Your task to perform on an android device: turn off airplane mode Image 0: 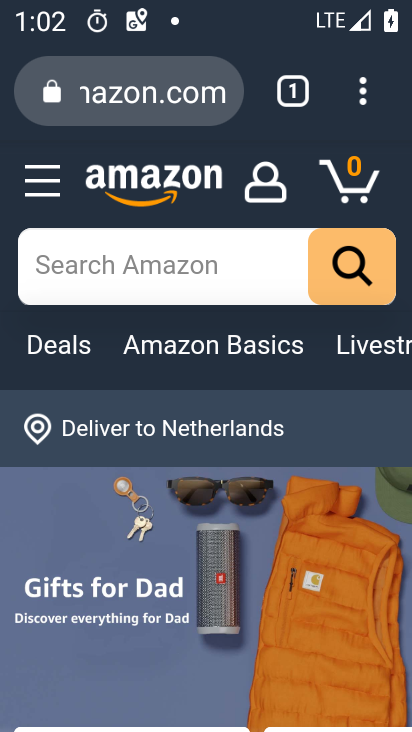
Step 0: press home button
Your task to perform on an android device: turn off airplane mode Image 1: 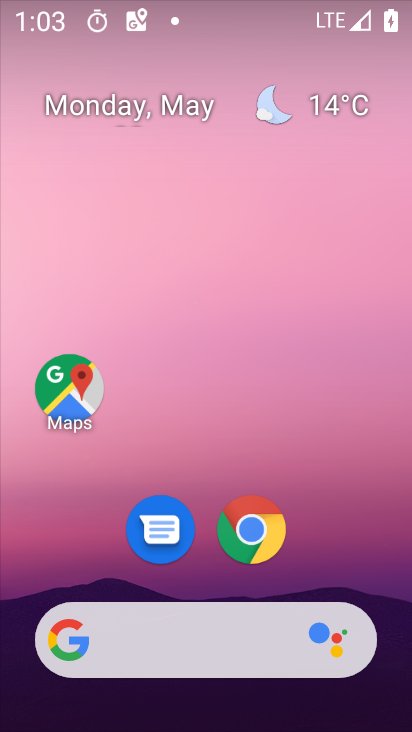
Step 1: drag from (376, 562) to (385, 177)
Your task to perform on an android device: turn off airplane mode Image 2: 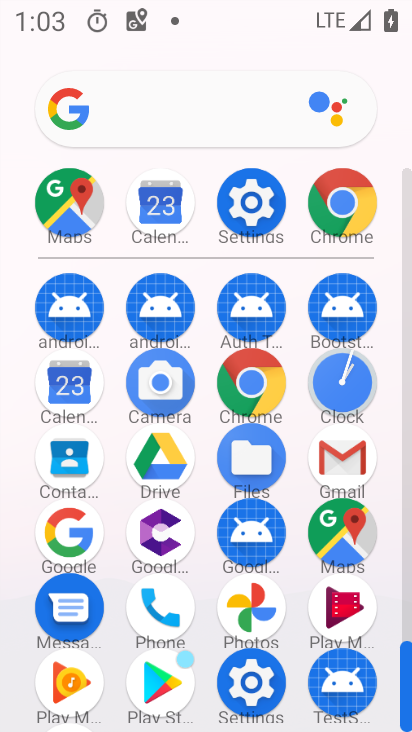
Step 2: click (264, 200)
Your task to perform on an android device: turn off airplane mode Image 3: 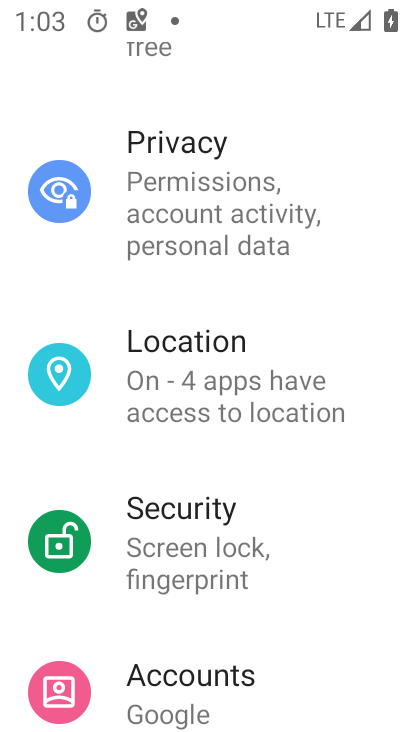
Step 3: drag from (357, 354) to (354, 442)
Your task to perform on an android device: turn off airplane mode Image 4: 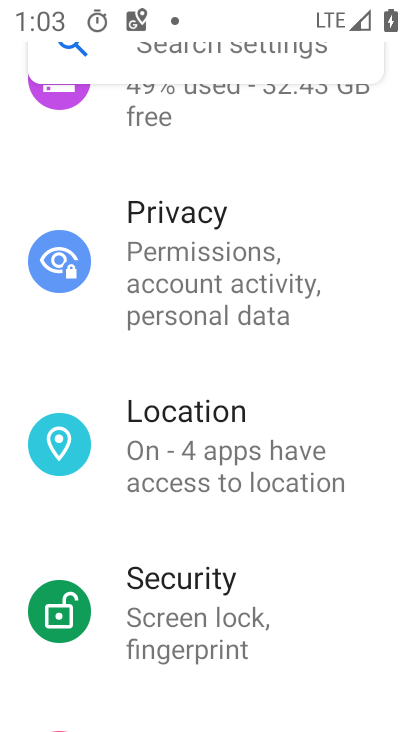
Step 4: drag from (370, 314) to (351, 430)
Your task to perform on an android device: turn off airplane mode Image 5: 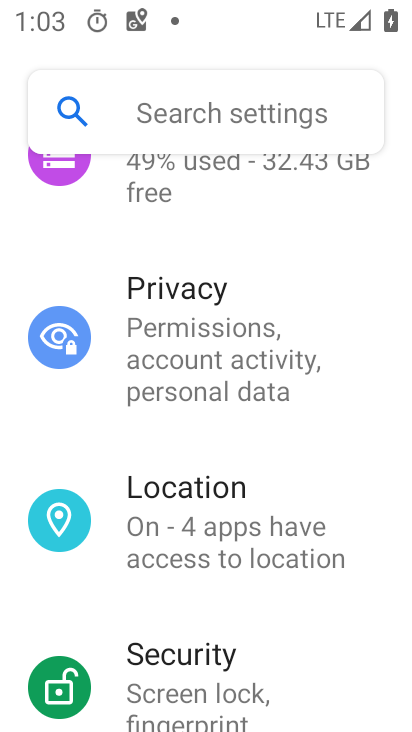
Step 5: drag from (358, 284) to (351, 376)
Your task to perform on an android device: turn off airplane mode Image 6: 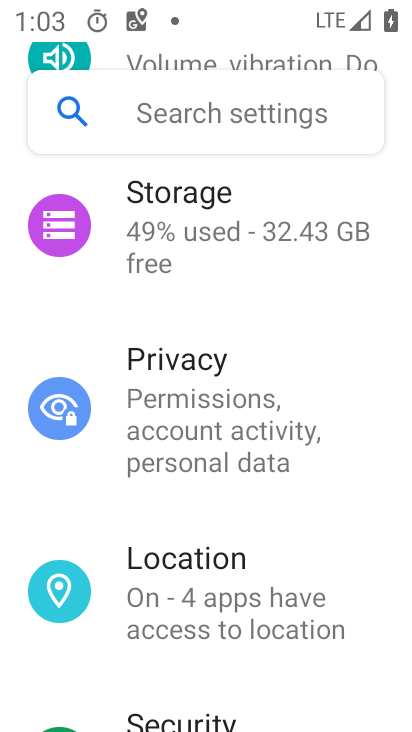
Step 6: drag from (359, 272) to (357, 366)
Your task to perform on an android device: turn off airplane mode Image 7: 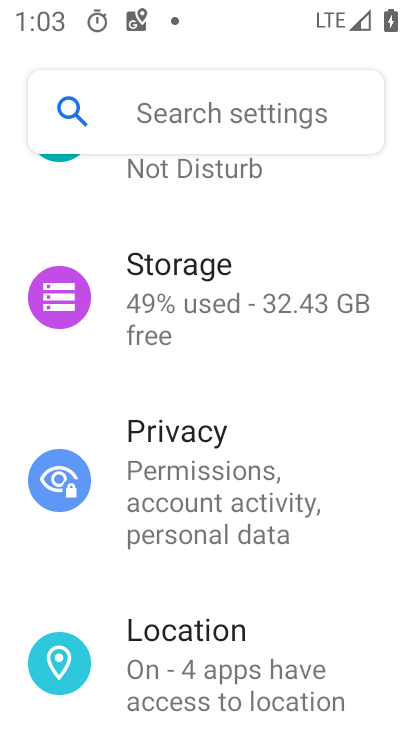
Step 7: drag from (378, 259) to (366, 366)
Your task to perform on an android device: turn off airplane mode Image 8: 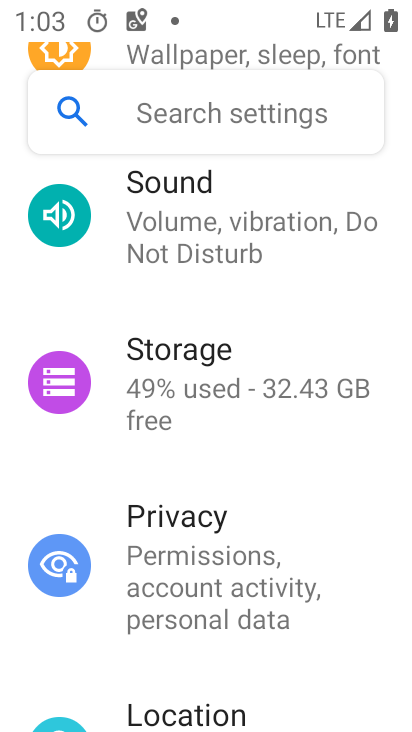
Step 8: drag from (376, 277) to (375, 368)
Your task to perform on an android device: turn off airplane mode Image 9: 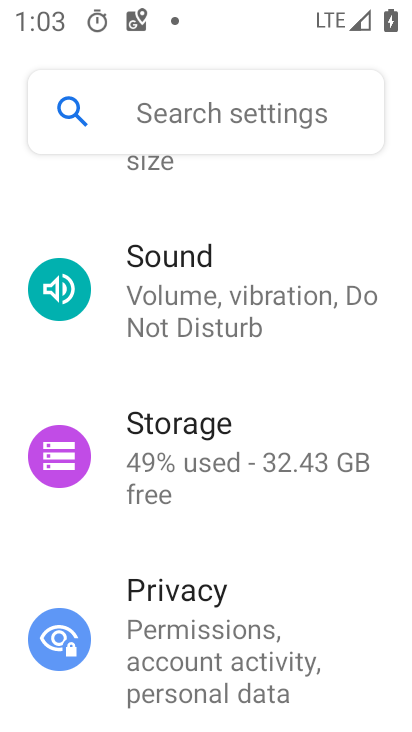
Step 9: drag from (377, 251) to (360, 363)
Your task to perform on an android device: turn off airplane mode Image 10: 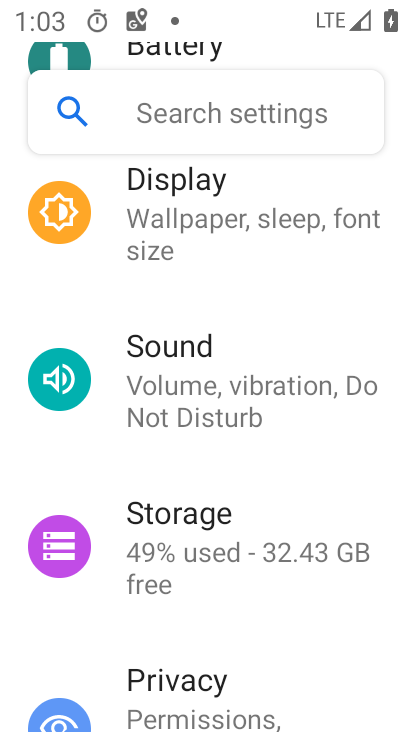
Step 10: drag from (390, 231) to (366, 344)
Your task to perform on an android device: turn off airplane mode Image 11: 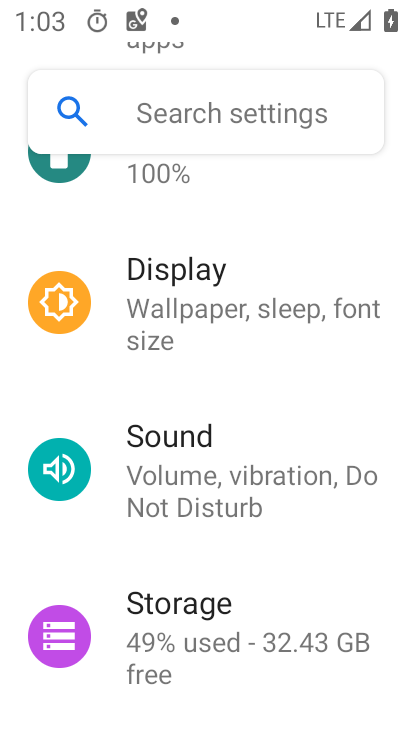
Step 11: drag from (382, 212) to (383, 349)
Your task to perform on an android device: turn off airplane mode Image 12: 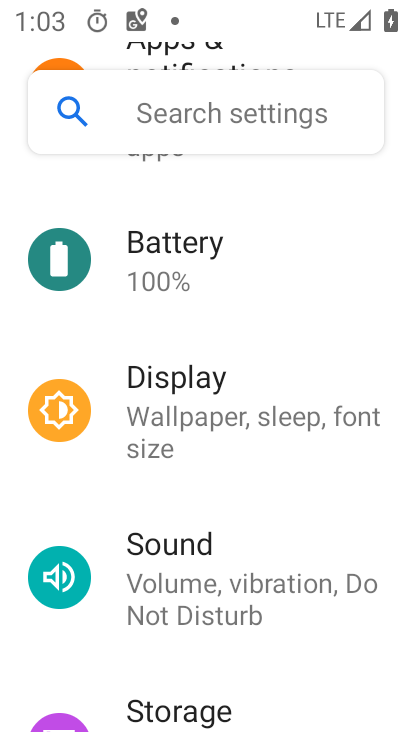
Step 12: drag from (369, 198) to (353, 343)
Your task to perform on an android device: turn off airplane mode Image 13: 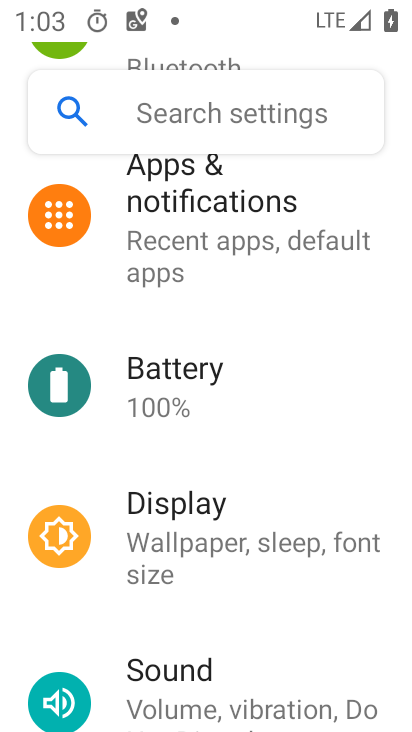
Step 13: drag from (378, 195) to (360, 328)
Your task to perform on an android device: turn off airplane mode Image 14: 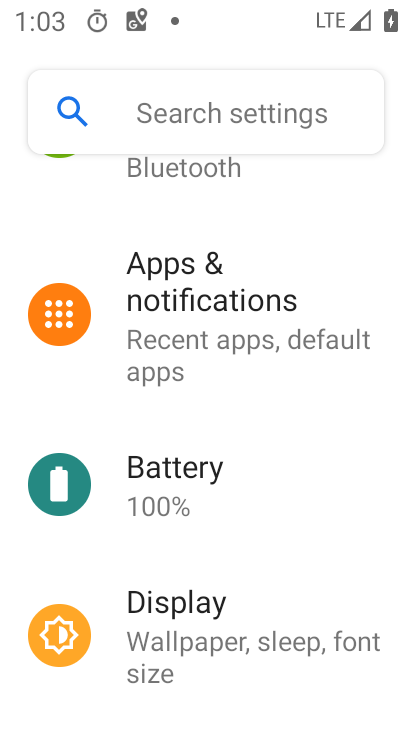
Step 14: drag from (364, 217) to (357, 343)
Your task to perform on an android device: turn off airplane mode Image 15: 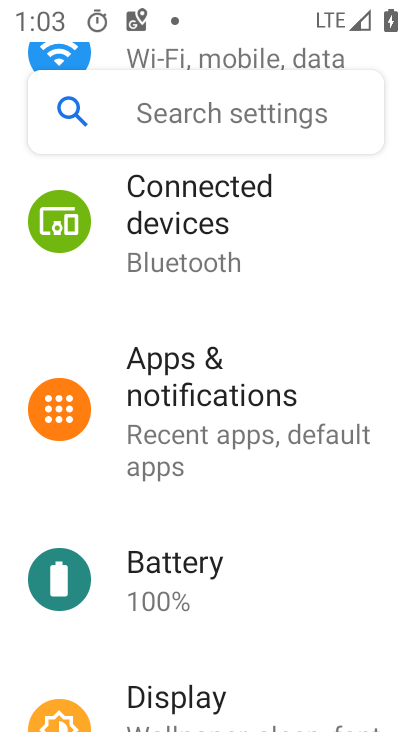
Step 15: drag from (356, 193) to (352, 315)
Your task to perform on an android device: turn off airplane mode Image 16: 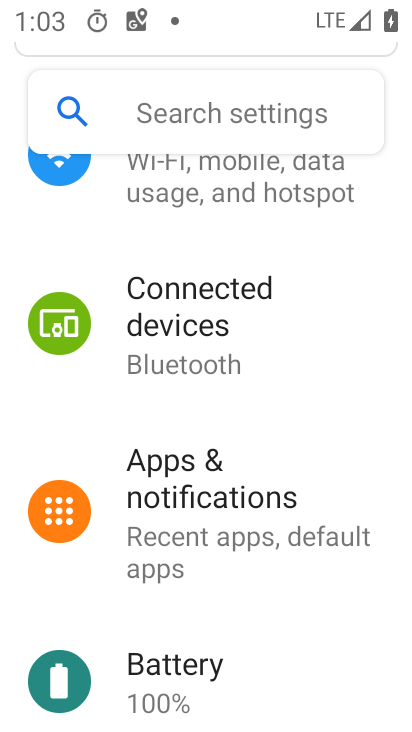
Step 16: drag from (381, 171) to (371, 308)
Your task to perform on an android device: turn off airplane mode Image 17: 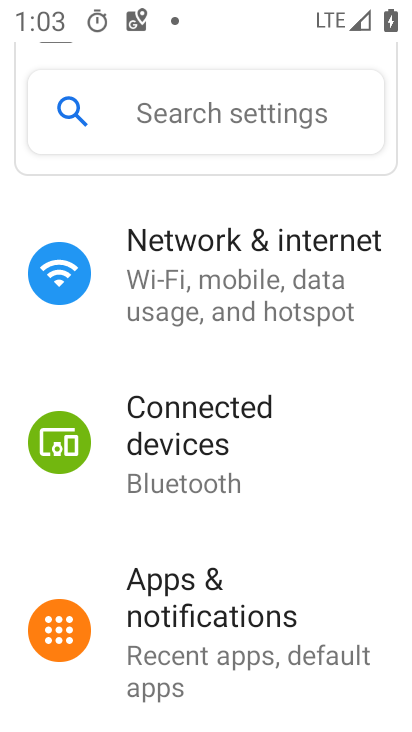
Step 17: drag from (368, 411) to (370, 322)
Your task to perform on an android device: turn off airplane mode Image 18: 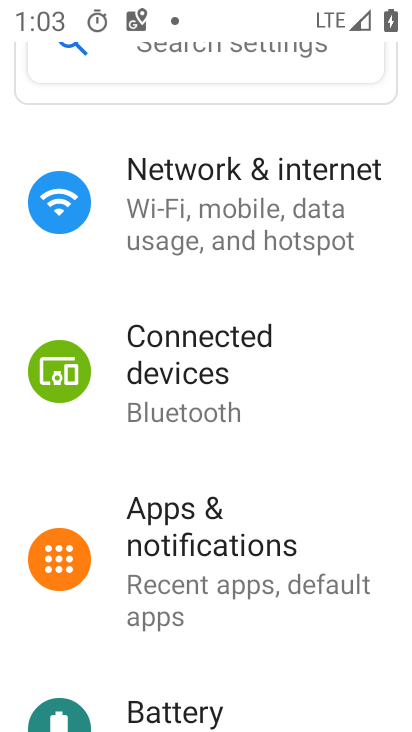
Step 18: drag from (356, 417) to (364, 327)
Your task to perform on an android device: turn off airplane mode Image 19: 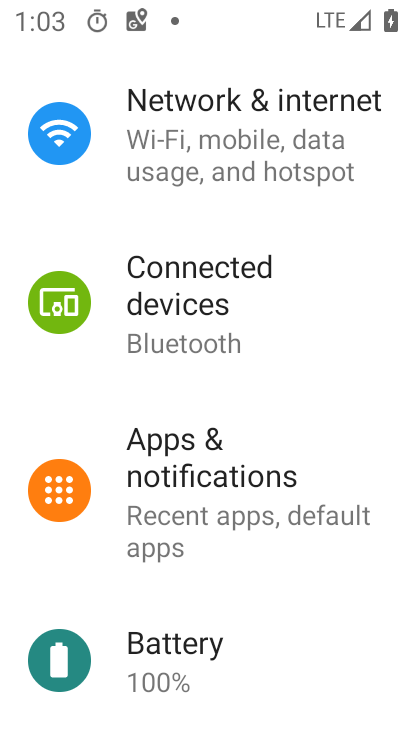
Step 19: drag from (372, 432) to (369, 331)
Your task to perform on an android device: turn off airplane mode Image 20: 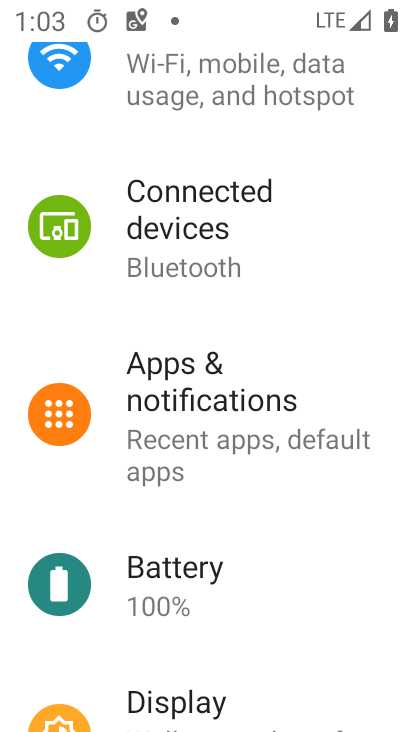
Step 20: drag from (359, 454) to (358, 386)
Your task to perform on an android device: turn off airplane mode Image 21: 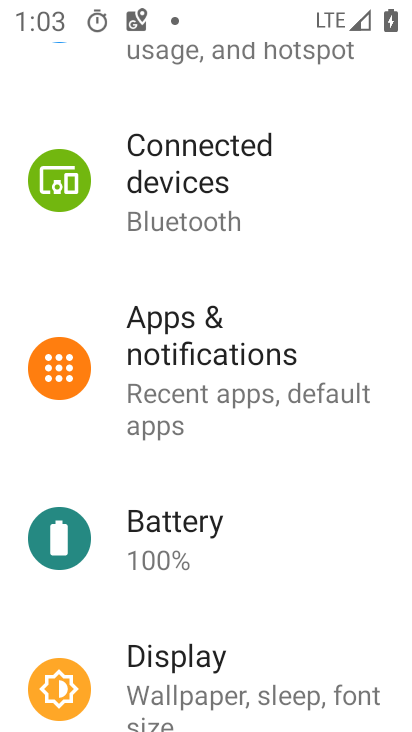
Step 21: drag from (349, 241) to (336, 412)
Your task to perform on an android device: turn off airplane mode Image 22: 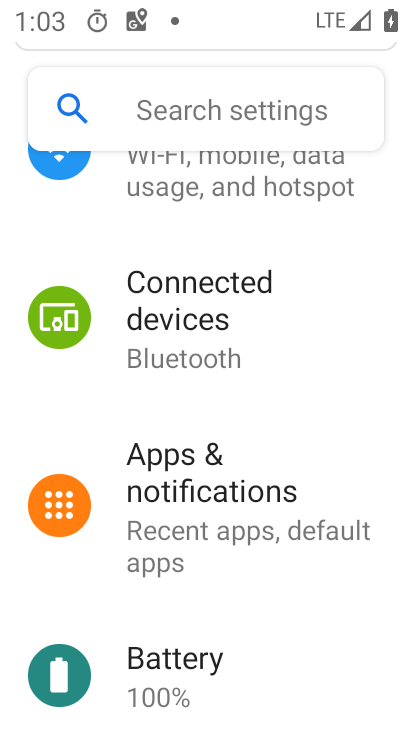
Step 22: drag from (355, 246) to (360, 364)
Your task to perform on an android device: turn off airplane mode Image 23: 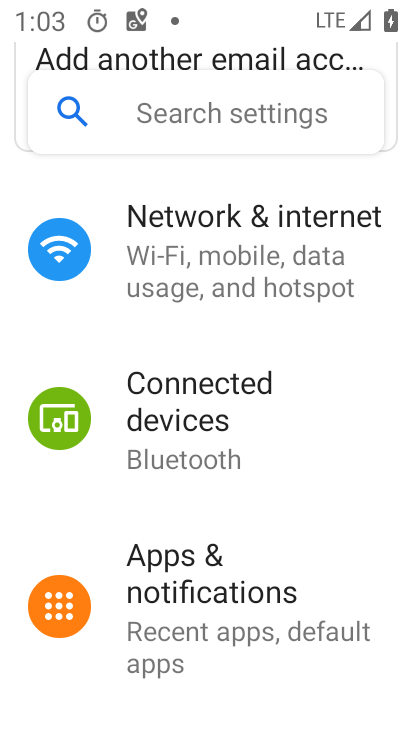
Step 23: click (311, 287)
Your task to perform on an android device: turn off airplane mode Image 24: 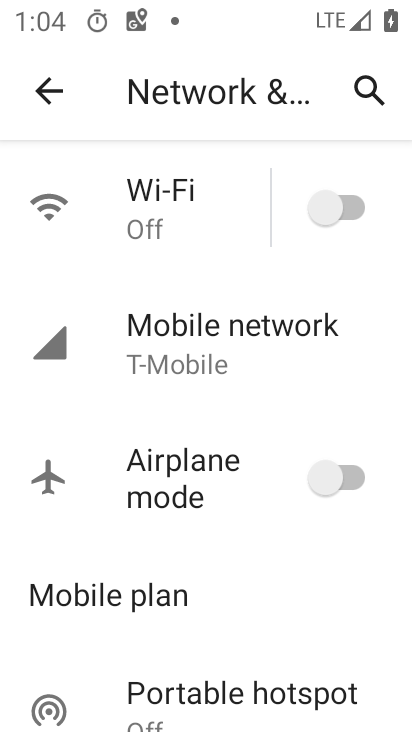
Step 24: task complete